Your task to perform on an android device: Open Wikipedia Image 0: 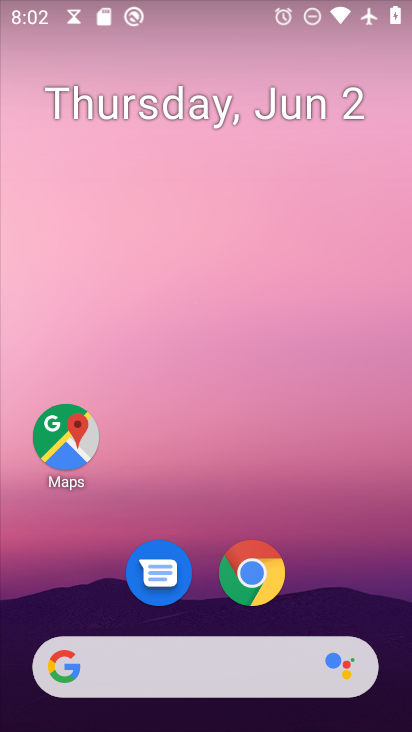
Step 0: press home button
Your task to perform on an android device: Open Wikipedia Image 1: 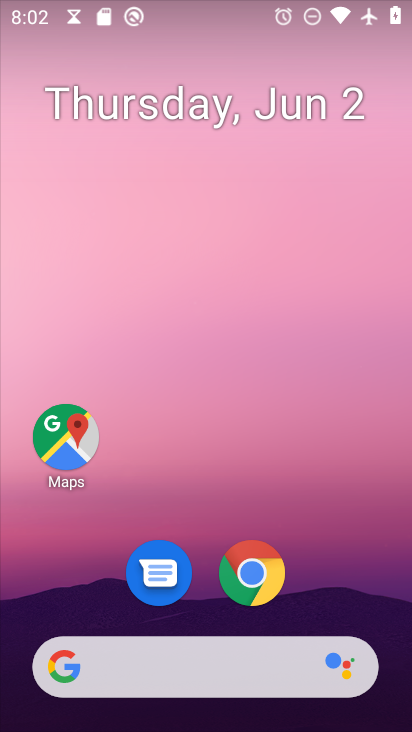
Step 1: click (260, 587)
Your task to perform on an android device: Open Wikipedia Image 2: 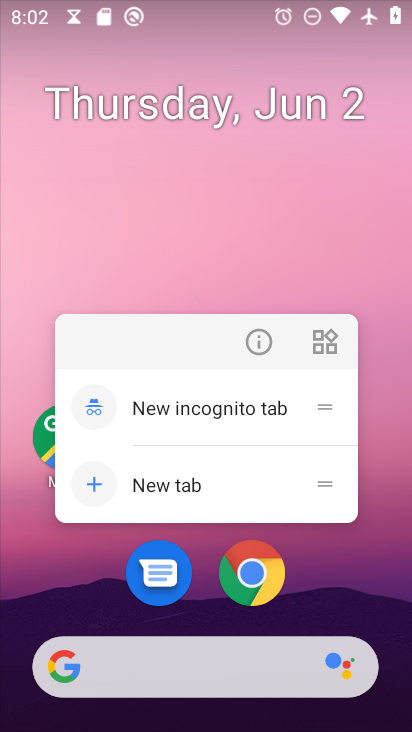
Step 2: click (257, 573)
Your task to perform on an android device: Open Wikipedia Image 3: 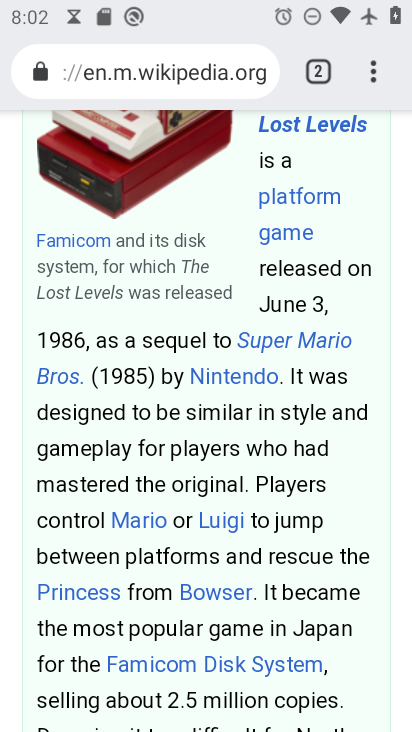
Step 3: task complete